Your task to perform on an android device: open app "Viber Messenger" (install if not already installed) Image 0: 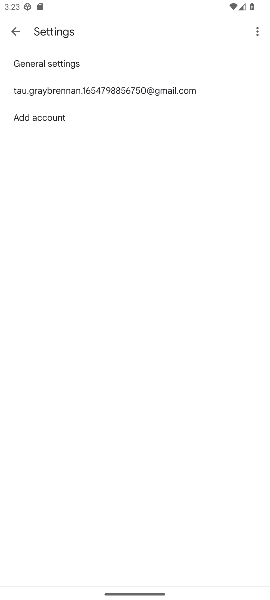
Step 0: press home button
Your task to perform on an android device: open app "Viber Messenger" (install if not already installed) Image 1: 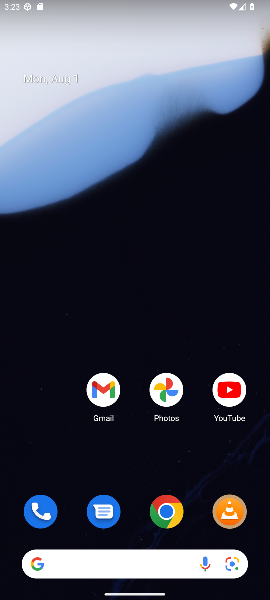
Step 1: drag from (141, 472) to (139, 31)
Your task to perform on an android device: open app "Viber Messenger" (install if not already installed) Image 2: 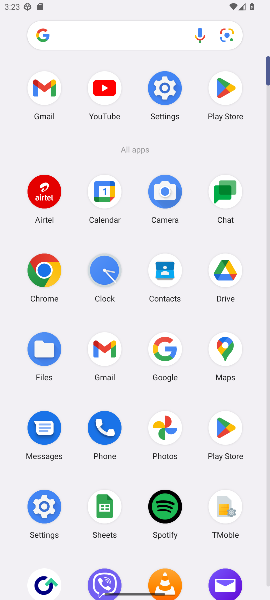
Step 2: click (226, 423)
Your task to perform on an android device: open app "Viber Messenger" (install if not already installed) Image 3: 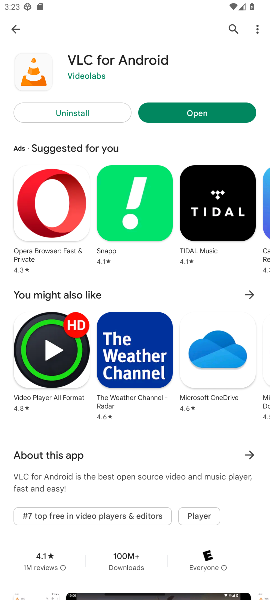
Step 3: click (15, 26)
Your task to perform on an android device: open app "Viber Messenger" (install if not already installed) Image 4: 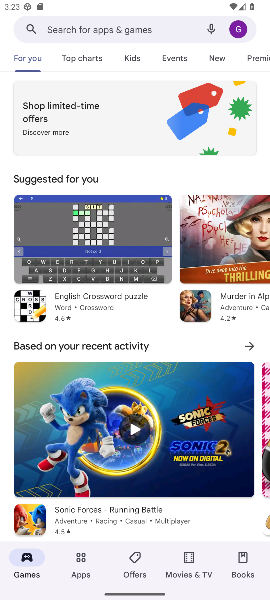
Step 4: click (108, 26)
Your task to perform on an android device: open app "Viber Messenger" (install if not already installed) Image 5: 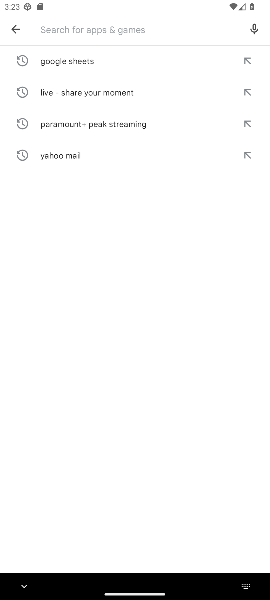
Step 5: type "Viber Messenger"
Your task to perform on an android device: open app "Viber Messenger" (install if not already installed) Image 6: 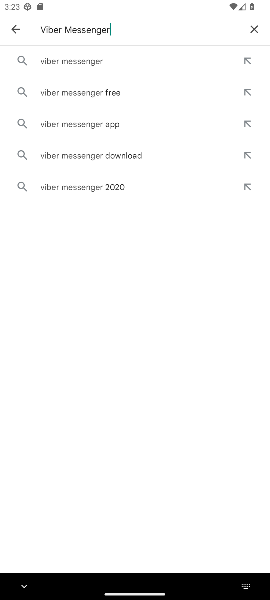
Step 6: click (69, 60)
Your task to perform on an android device: open app "Viber Messenger" (install if not already installed) Image 7: 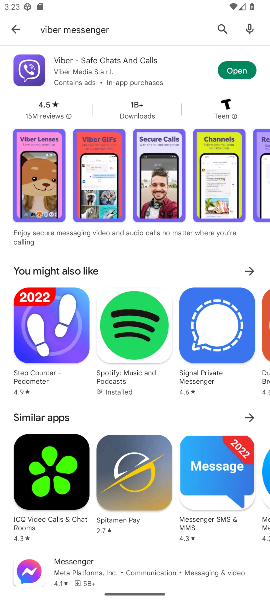
Step 7: click (233, 76)
Your task to perform on an android device: open app "Viber Messenger" (install if not already installed) Image 8: 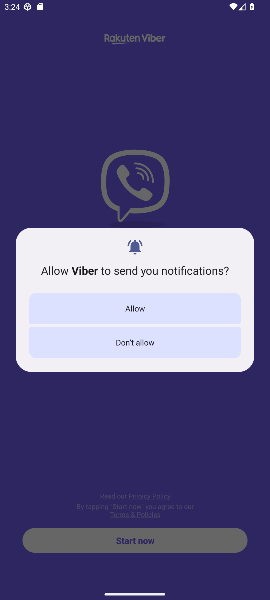
Step 8: click (135, 313)
Your task to perform on an android device: open app "Viber Messenger" (install if not already installed) Image 9: 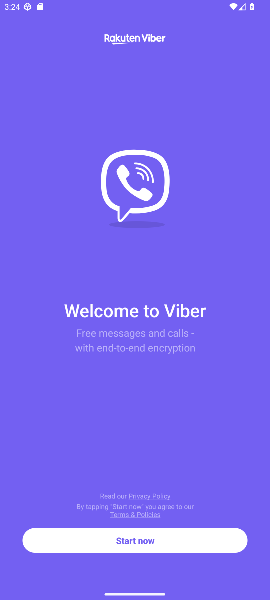
Step 9: task complete